Your task to perform on an android device: turn on data saver in the chrome app Image 0: 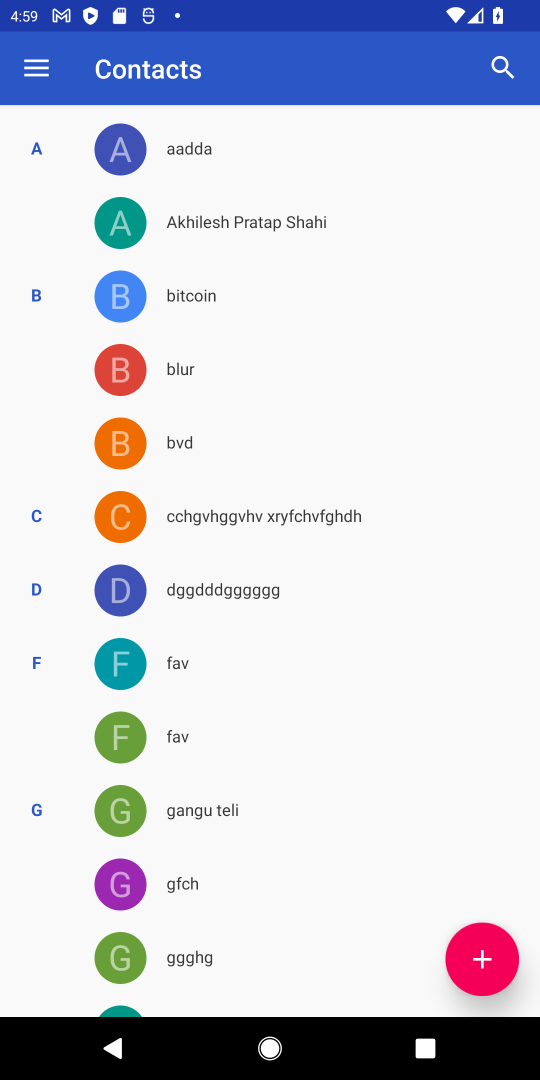
Step 0: press home button
Your task to perform on an android device: turn on data saver in the chrome app Image 1: 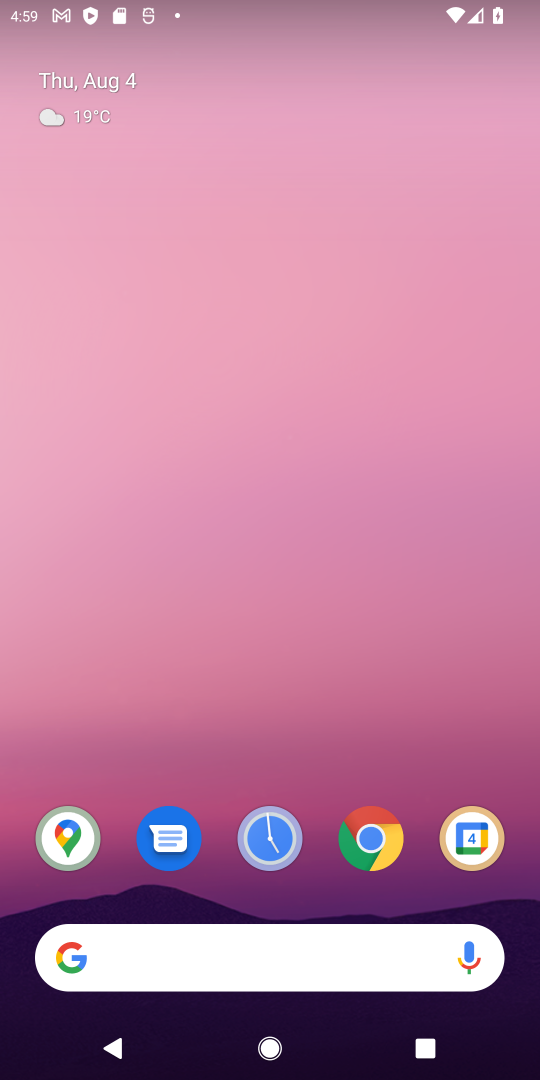
Step 1: drag from (291, 920) to (347, 54)
Your task to perform on an android device: turn on data saver in the chrome app Image 2: 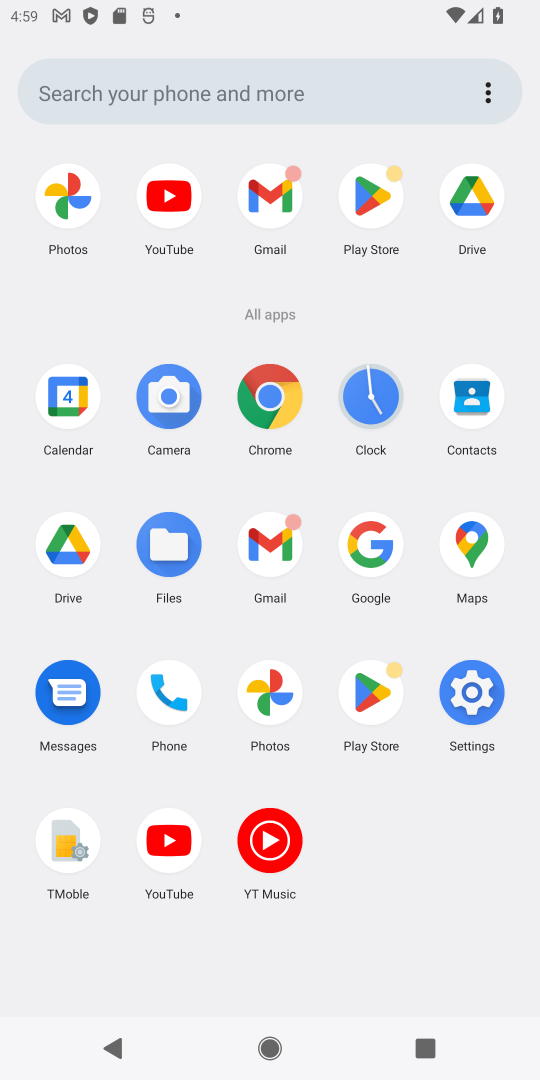
Step 2: click (281, 393)
Your task to perform on an android device: turn on data saver in the chrome app Image 3: 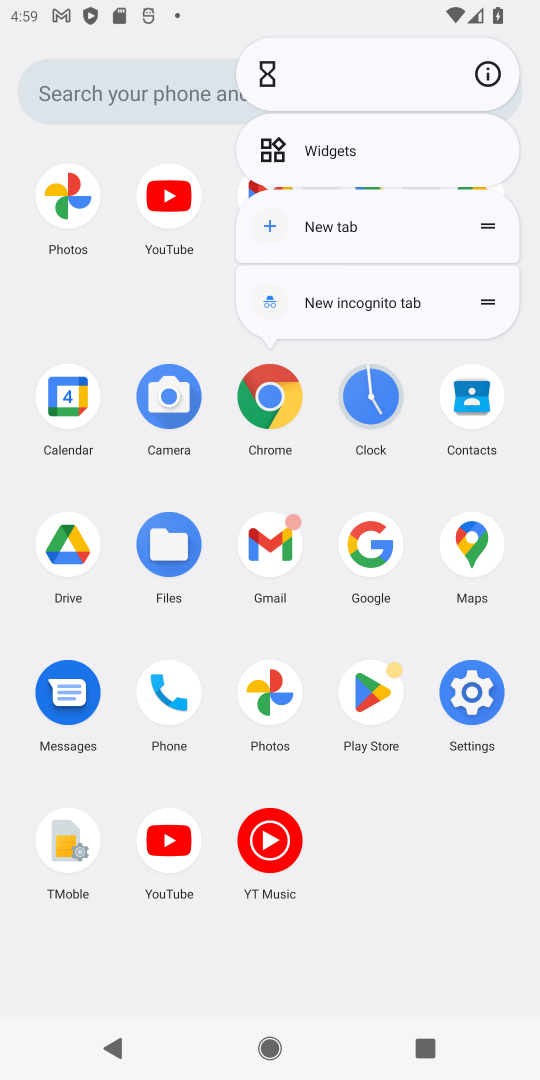
Step 3: click (281, 393)
Your task to perform on an android device: turn on data saver in the chrome app Image 4: 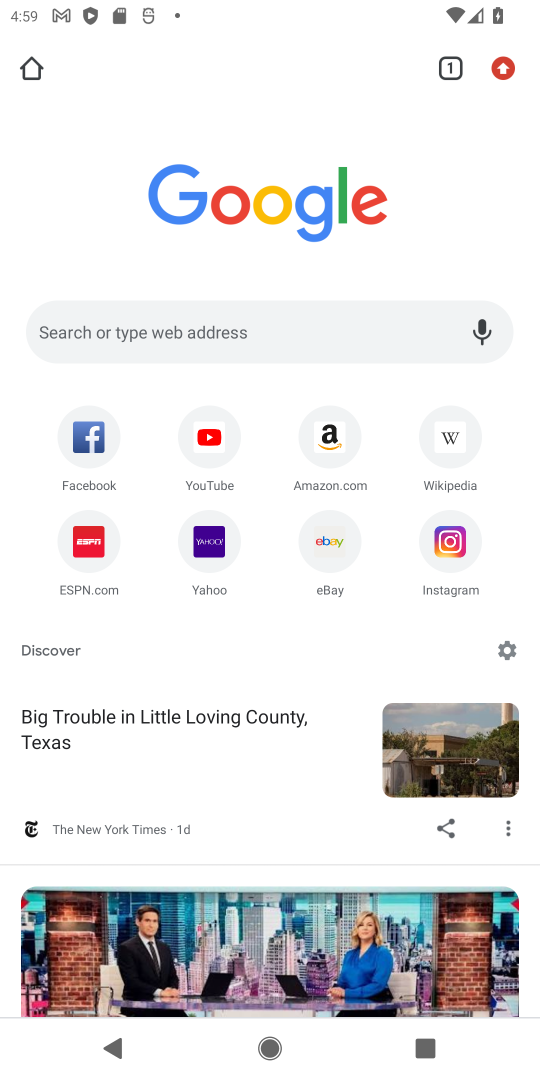
Step 4: drag from (504, 65) to (271, 698)
Your task to perform on an android device: turn on data saver in the chrome app Image 5: 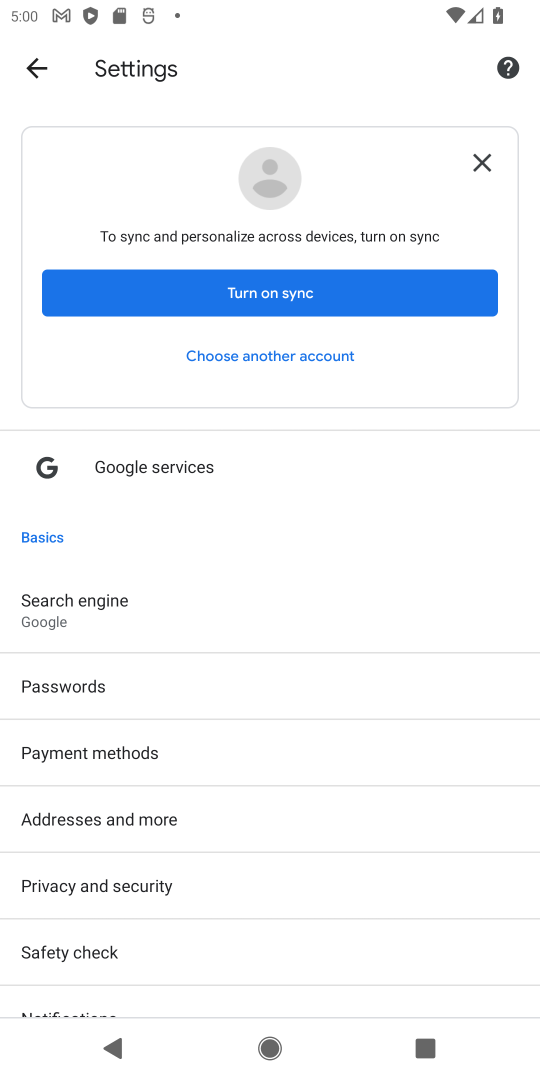
Step 5: drag from (206, 892) to (241, 273)
Your task to perform on an android device: turn on data saver in the chrome app Image 6: 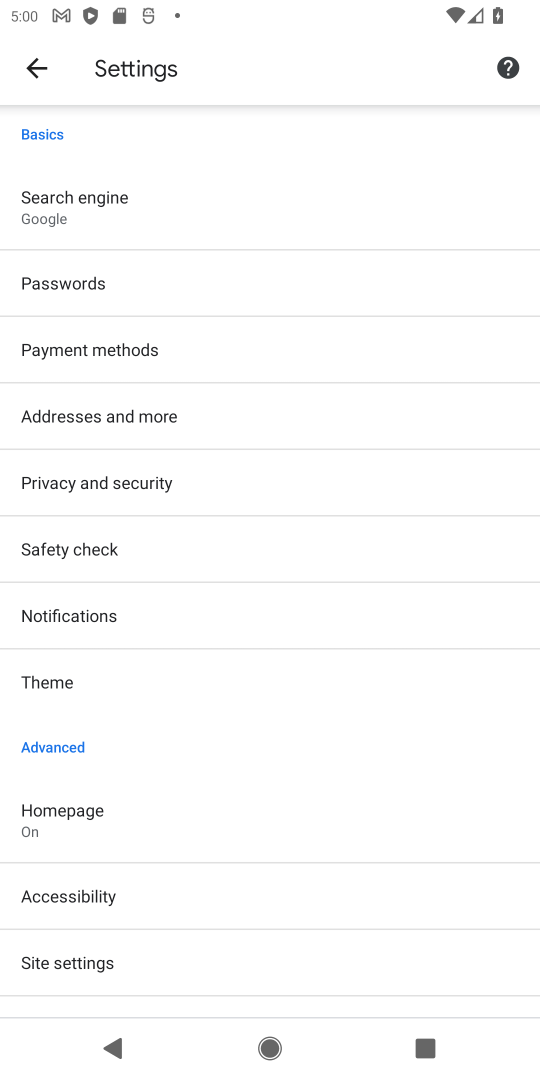
Step 6: drag from (188, 506) to (157, 803)
Your task to perform on an android device: turn on data saver in the chrome app Image 7: 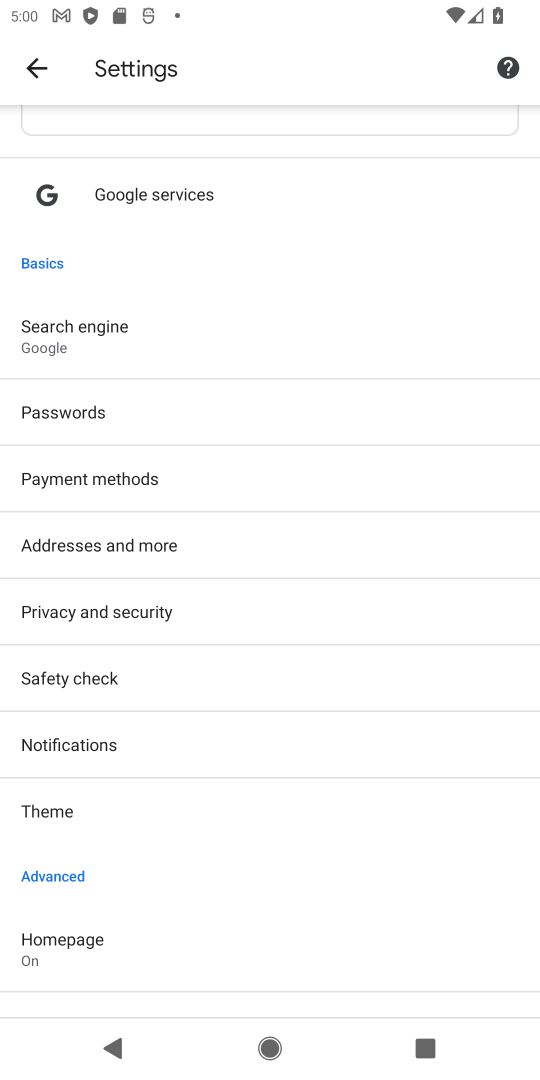
Step 7: drag from (130, 846) to (167, 170)
Your task to perform on an android device: turn on data saver in the chrome app Image 8: 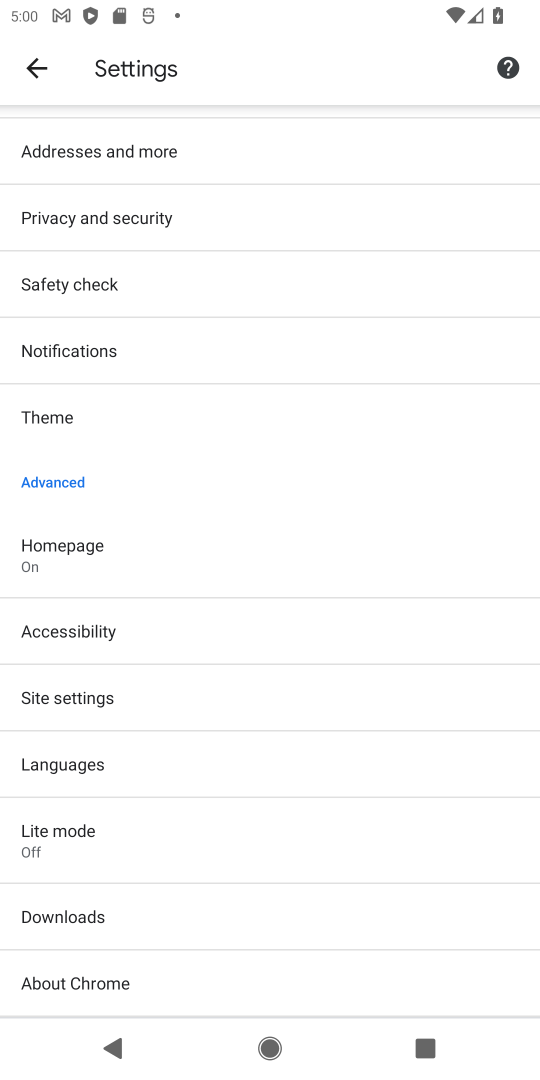
Step 8: click (85, 841)
Your task to perform on an android device: turn on data saver in the chrome app Image 9: 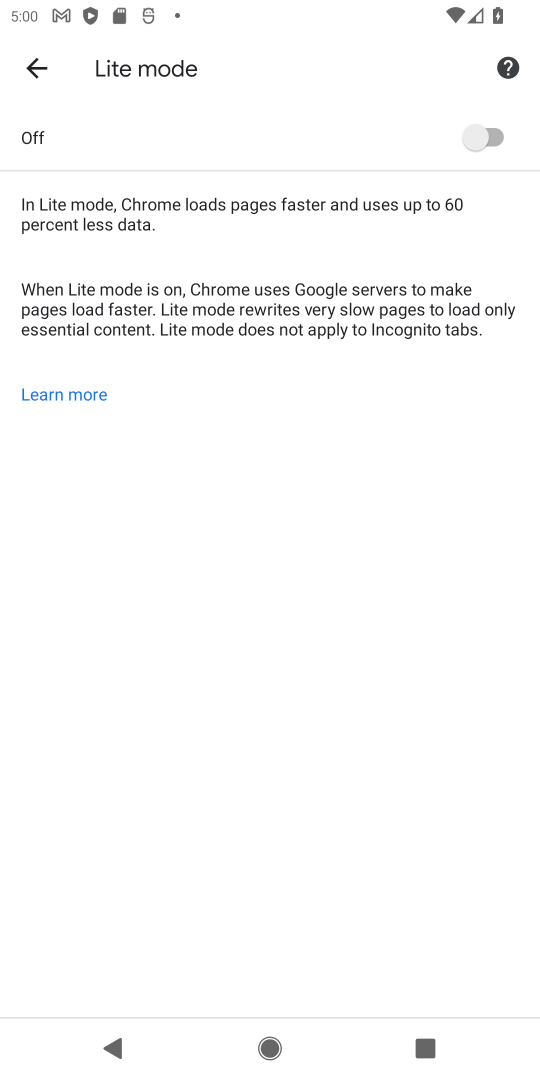
Step 9: click (486, 135)
Your task to perform on an android device: turn on data saver in the chrome app Image 10: 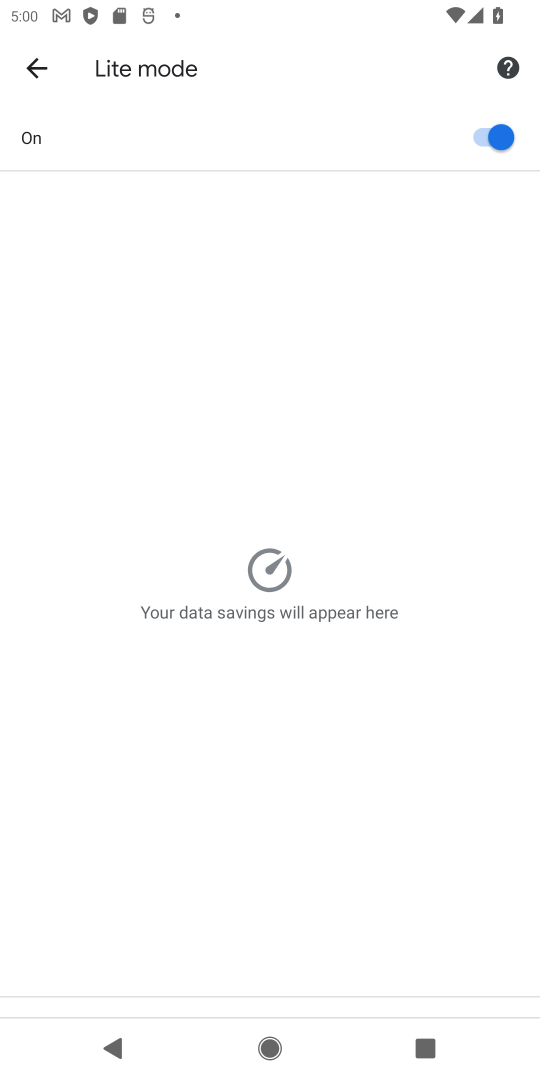
Step 10: task complete